Your task to perform on an android device: Go to wifi settings Image 0: 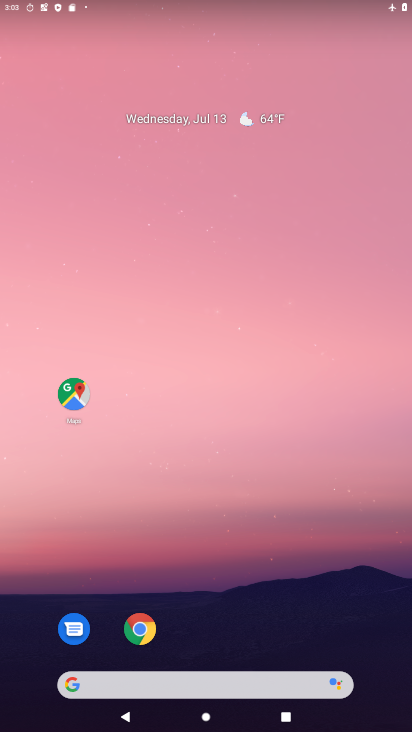
Step 0: drag from (317, 683) to (337, 152)
Your task to perform on an android device: Go to wifi settings Image 1: 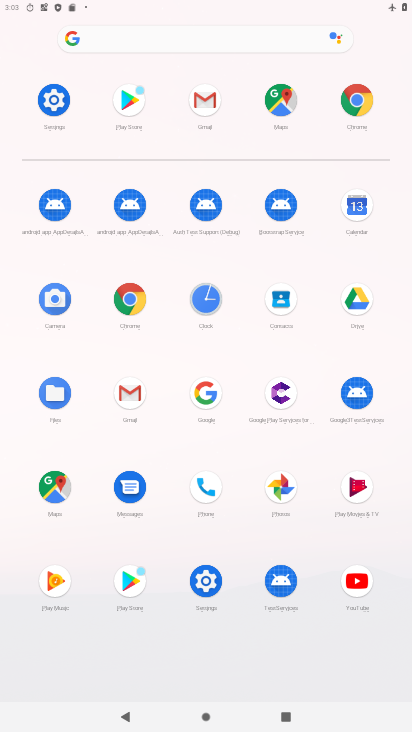
Step 1: click (53, 101)
Your task to perform on an android device: Go to wifi settings Image 2: 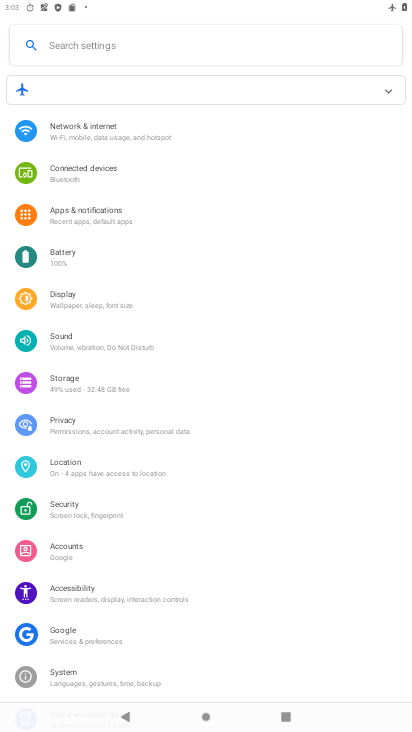
Step 2: click (108, 135)
Your task to perform on an android device: Go to wifi settings Image 3: 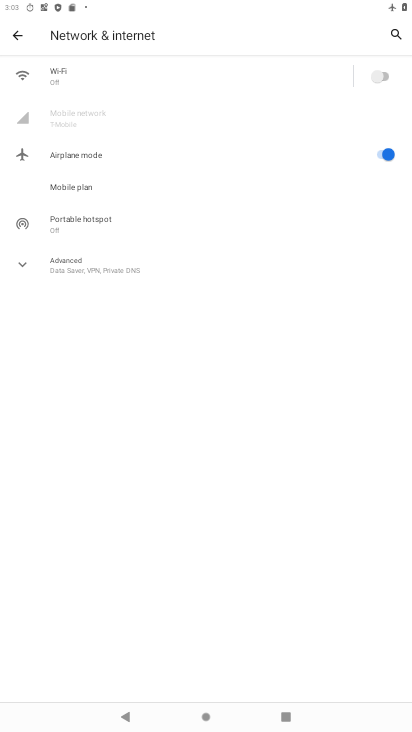
Step 3: task complete